Your task to perform on an android device: set the stopwatch Image 0: 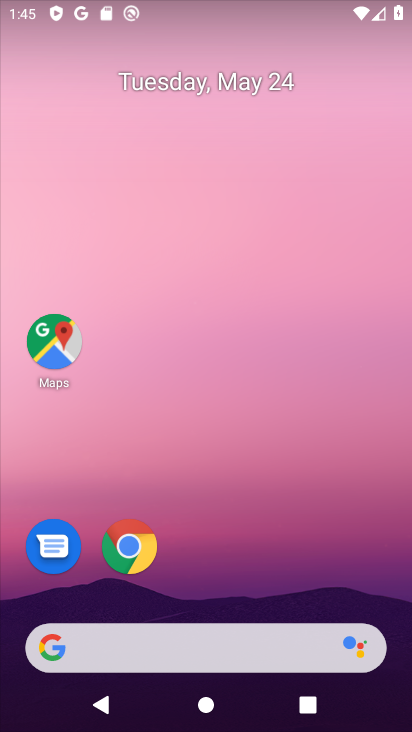
Step 0: click (195, 647)
Your task to perform on an android device: set the stopwatch Image 1: 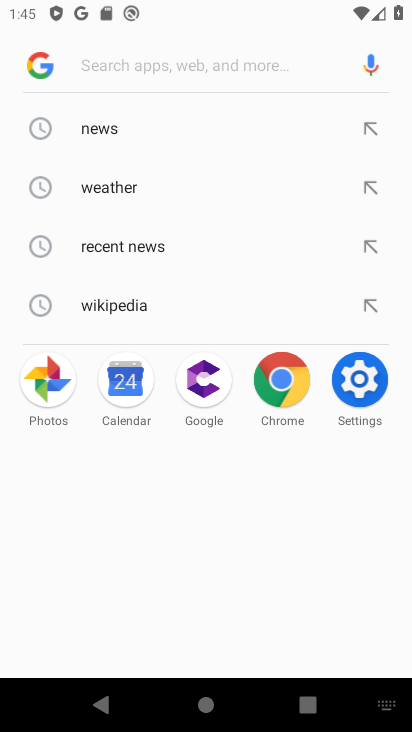
Step 1: press home button
Your task to perform on an android device: set the stopwatch Image 2: 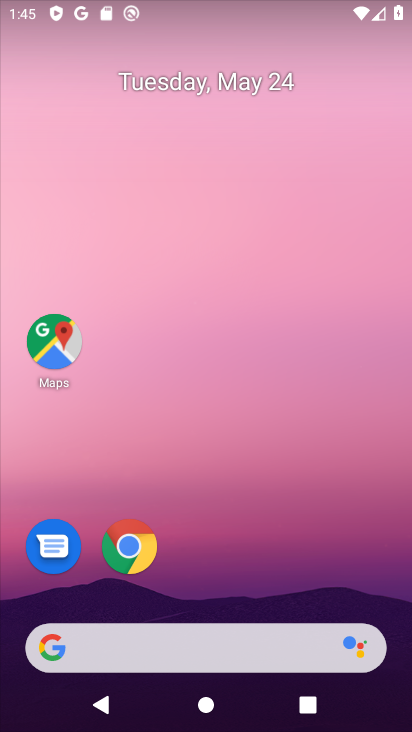
Step 2: drag from (216, 655) to (136, 82)
Your task to perform on an android device: set the stopwatch Image 3: 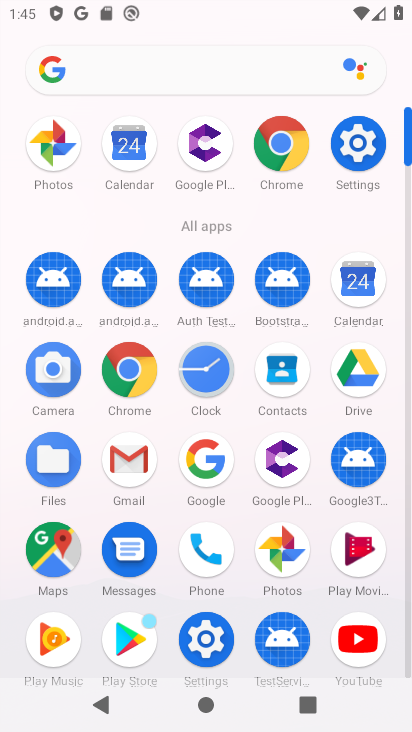
Step 3: click (215, 375)
Your task to perform on an android device: set the stopwatch Image 4: 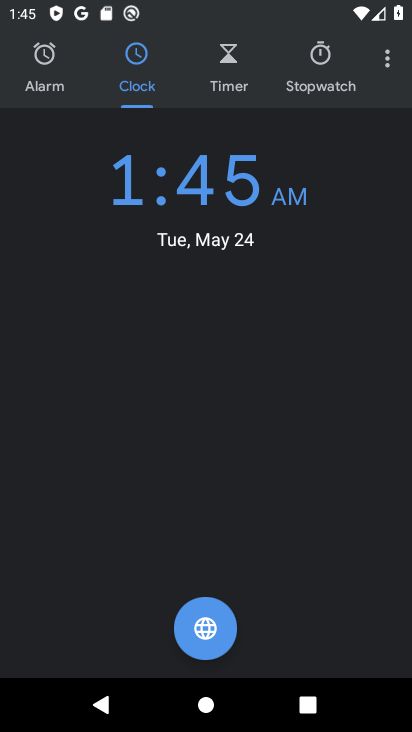
Step 4: click (346, 67)
Your task to perform on an android device: set the stopwatch Image 5: 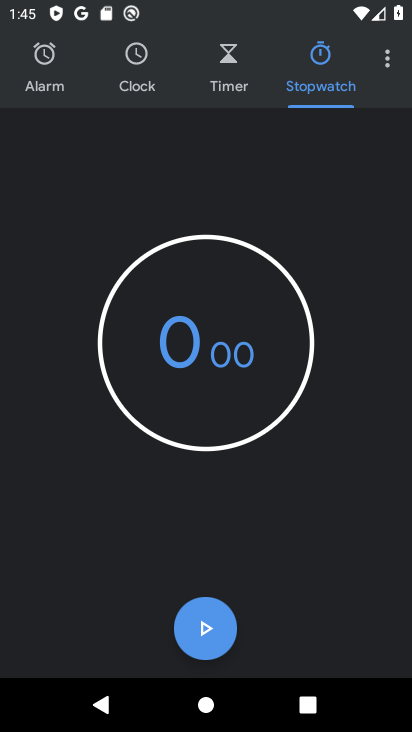
Step 5: click (216, 630)
Your task to perform on an android device: set the stopwatch Image 6: 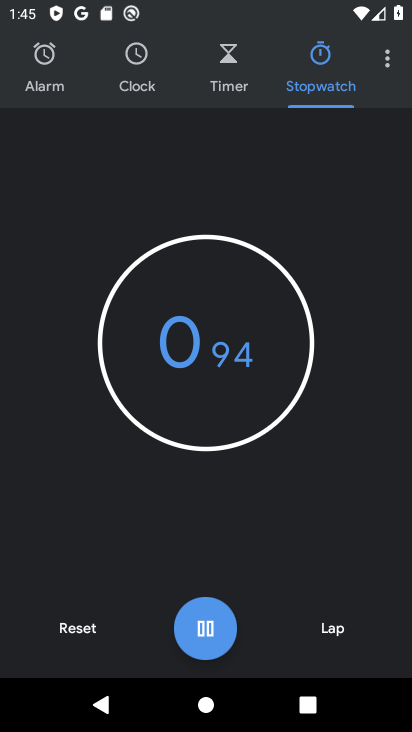
Step 6: task complete